Your task to perform on an android device: star an email in the gmail app Image 0: 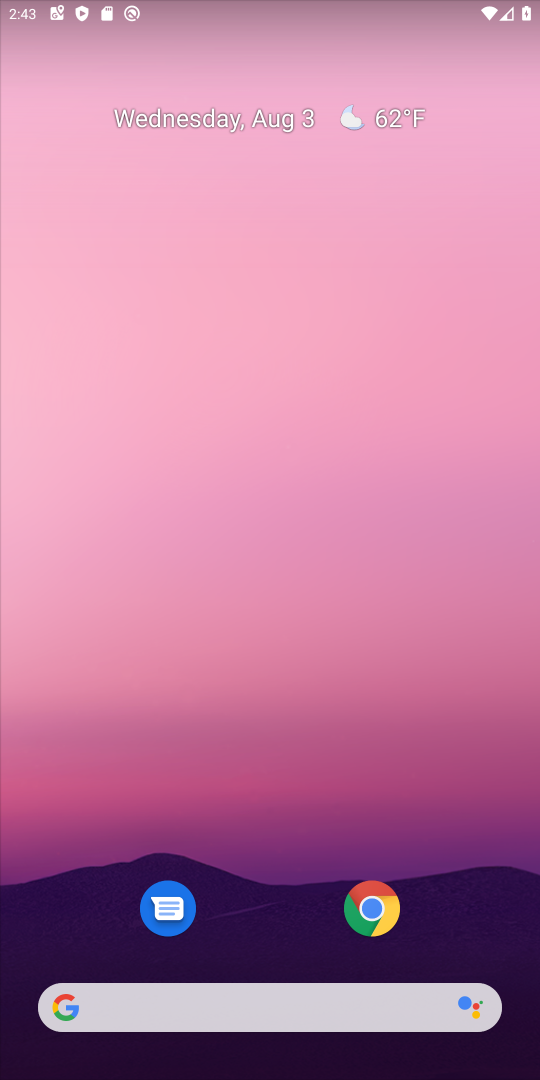
Step 0: drag from (115, 1036) to (227, 248)
Your task to perform on an android device: star an email in the gmail app Image 1: 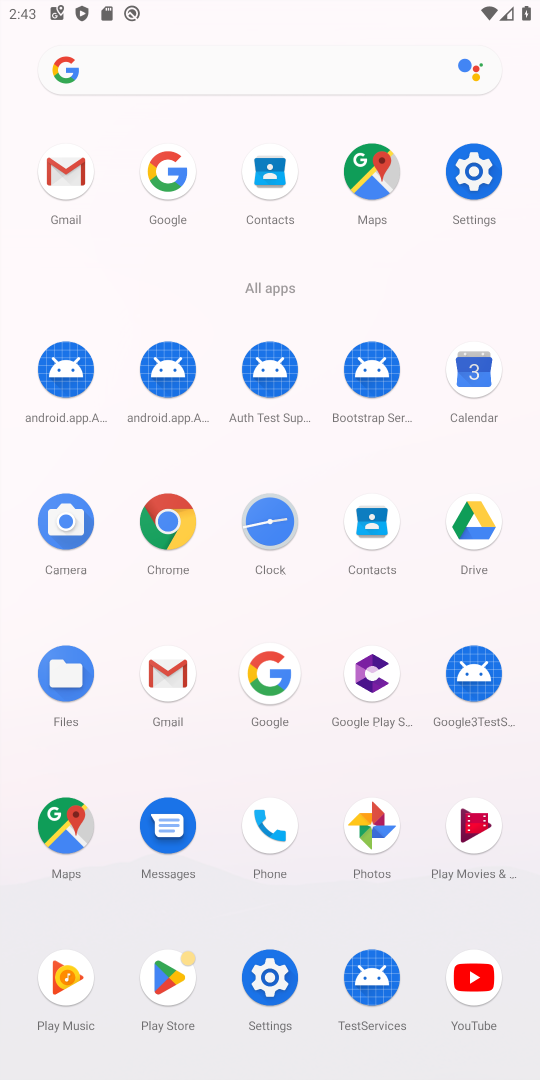
Step 1: click (59, 185)
Your task to perform on an android device: star an email in the gmail app Image 2: 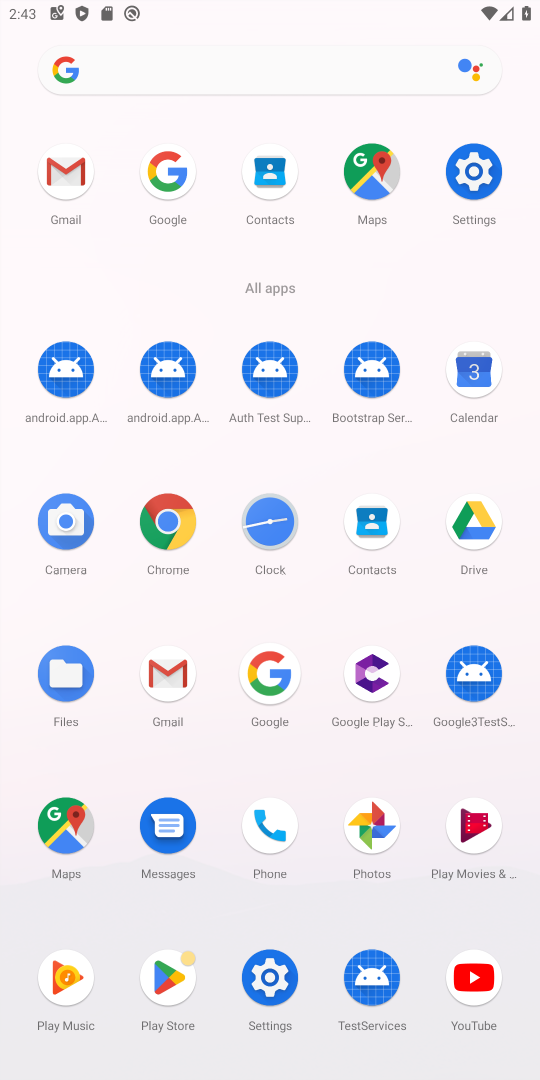
Step 2: click (59, 185)
Your task to perform on an android device: star an email in the gmail app Image 3: 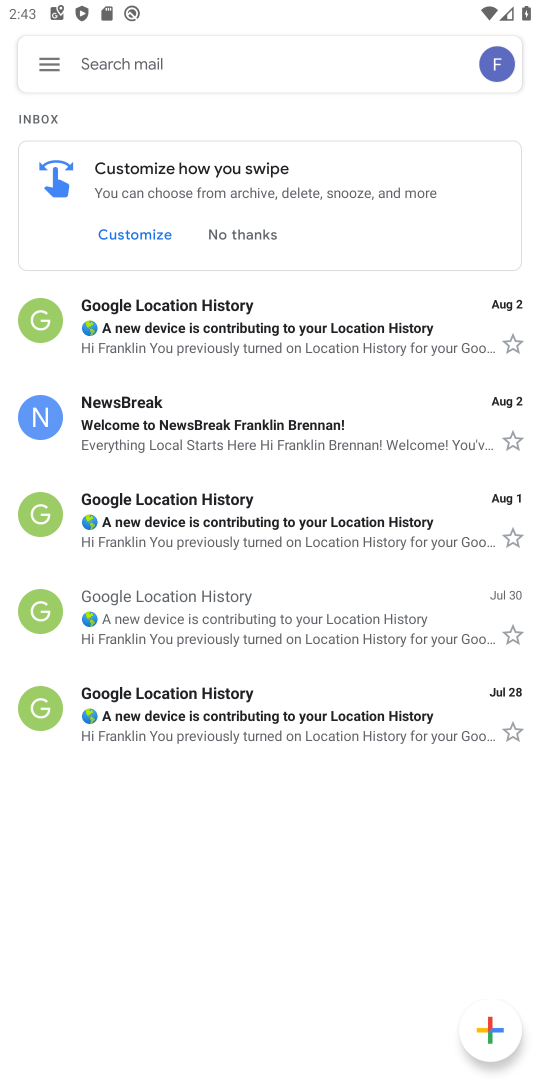
Step 3: click (503, 724)
Your task to perform on an android device: star an email in the gmail app Image 4: 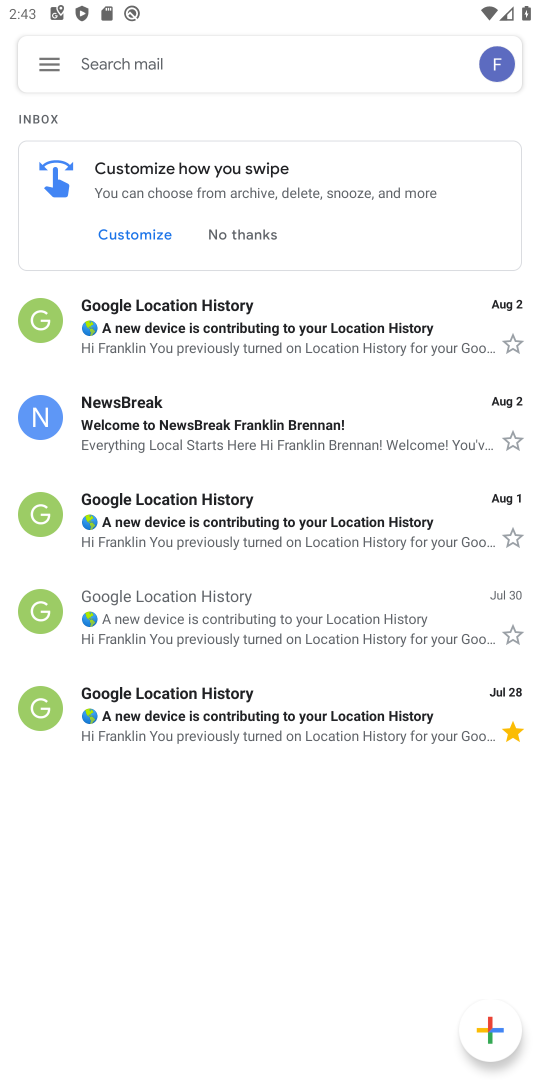
Step 4: task complete